Your task to perform on an android device: make emails show in primary in the gmail app Image 0: 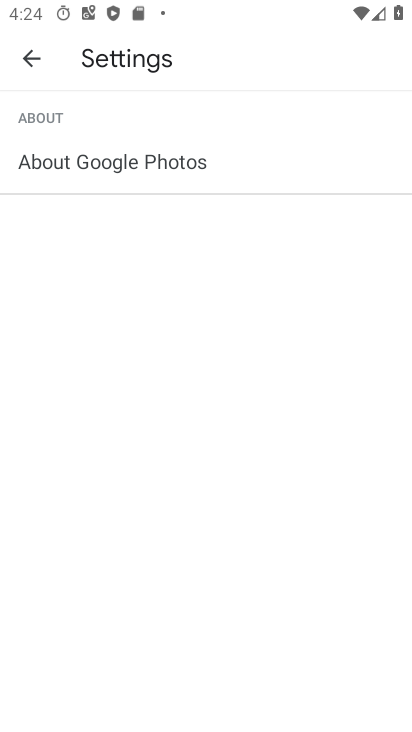
Step 0: press home button
Your task to perform on an android device: make emails show in primary in the gmail app Image 1: 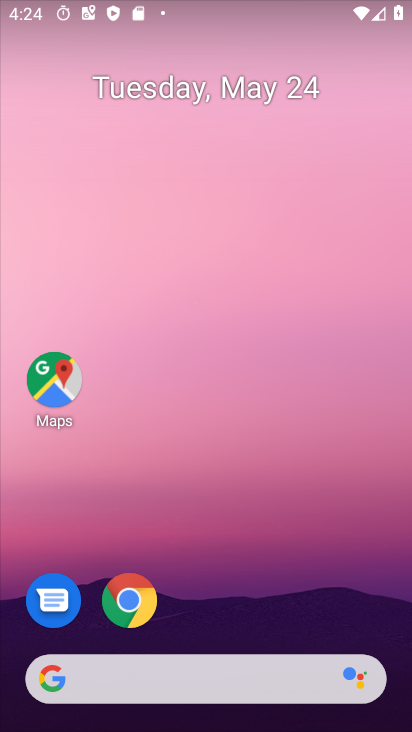
Step 1: drag from (292, 629) to (299, 8)
Your task to perform on an android device: make emails show in primary in the gmail app Image 2: 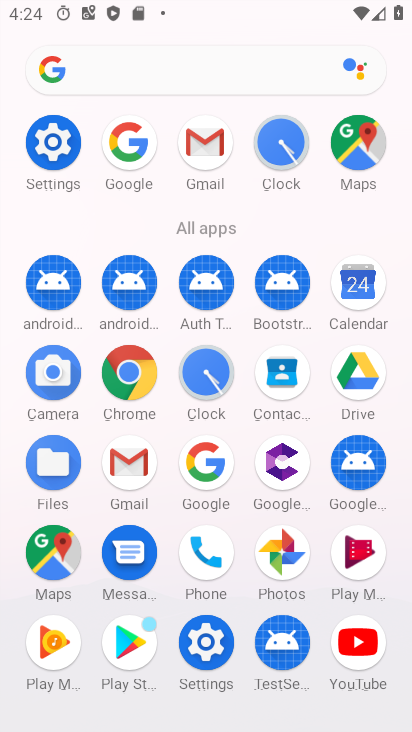
Step 2: click (203, 148)
Your task to perform on an android device: make emails show in primary in the gmail app Image 3: 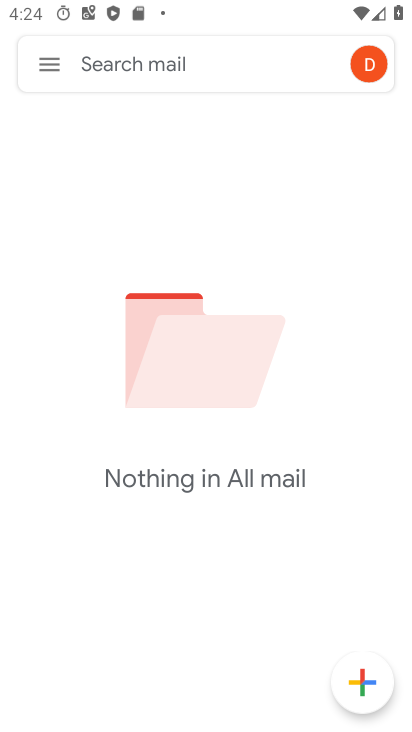
Step 3: click (44, 64)
Your task to perform on an android device: make emails show in primary in the gmail app Image 4: 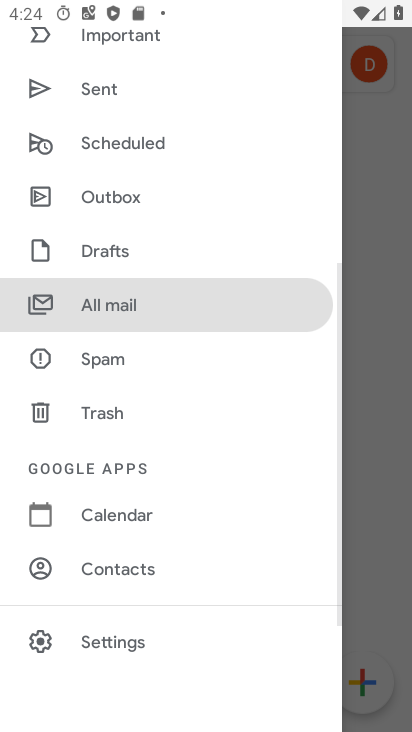
Step 4: click (112, 650)
Your task to perform on an android device: make emails show in primary in the gmail app Image 5: 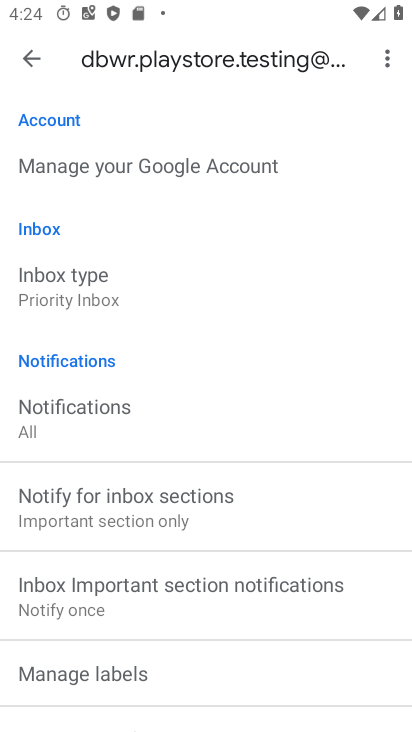
Step 5: task complete